Your task to perform on an android device: turn off location history Image 0: 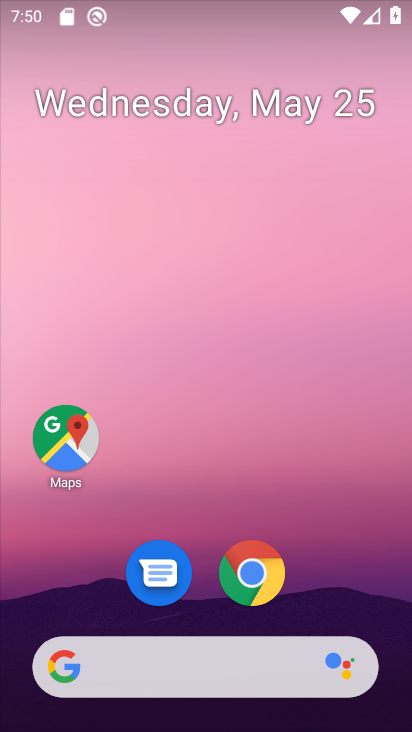
Step 0: drag from (400, 713) to (315, 164)
Your task to perform on an android device: turn off location history Image 1: 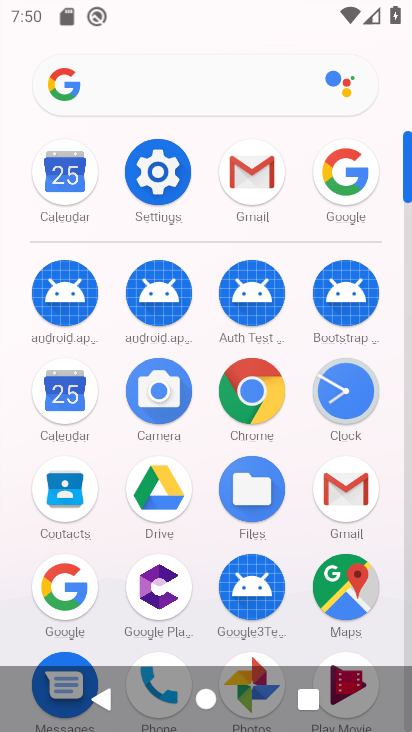
Step 1: click (158, 183)
Your task to perform on an android device: turn off location history Image 2: 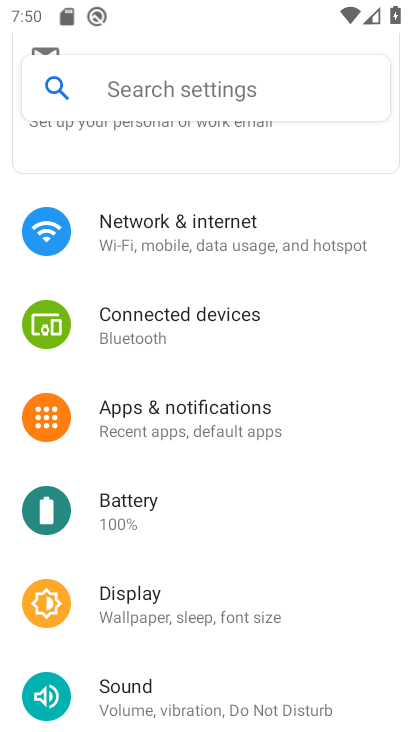
Step 2: drag from (323, 681) to (286, 329)
Your task to perform on an android device: turn off location history Image 3: 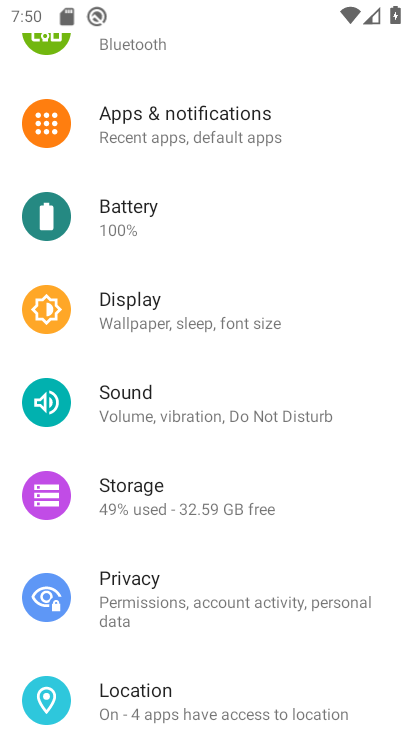
Step 3: click (128, 693)
Your task to perform on an android device: turn off location history Image 4: 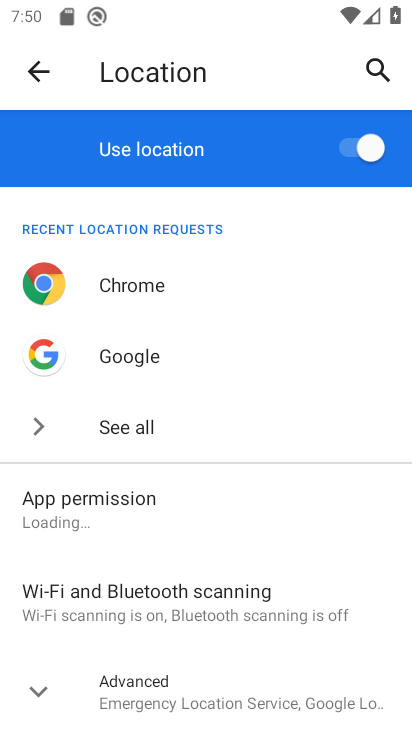
Step 4: drag from (230, 674) to (252, 361)
Your task to perform on an android device: turn off location history Image 5: 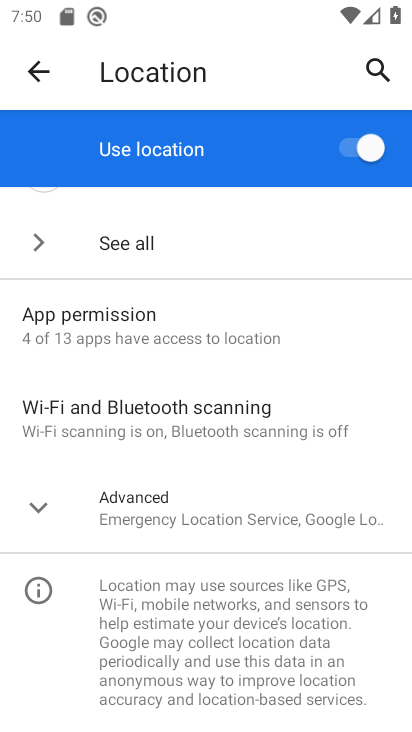
Step 5: click (38, 497)
Your task to perform on an android device: turn off location history Image 6: 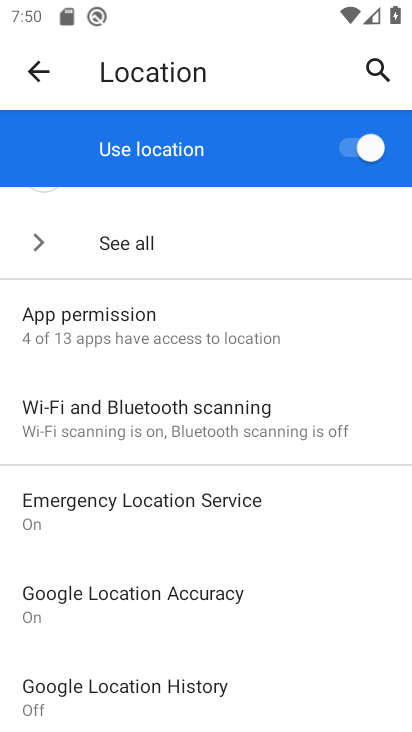
Step 6: drag from (387, 711) to (343, 372)
Your task to perform on an android device: turn off location history Image 7: 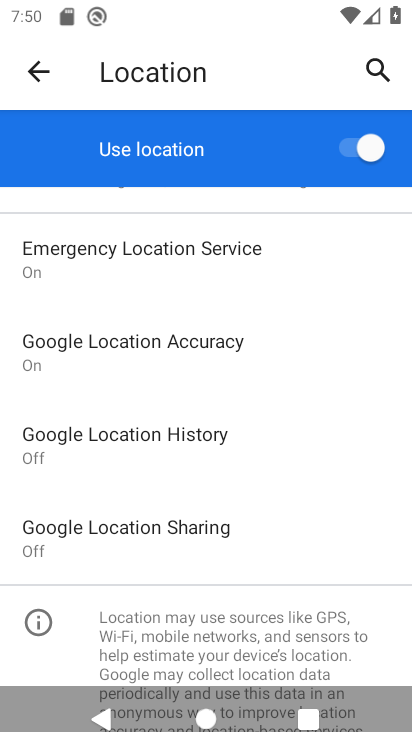
Step 7: click (67, 440)
Your task to perform on an android device: turn off location history Image 8: 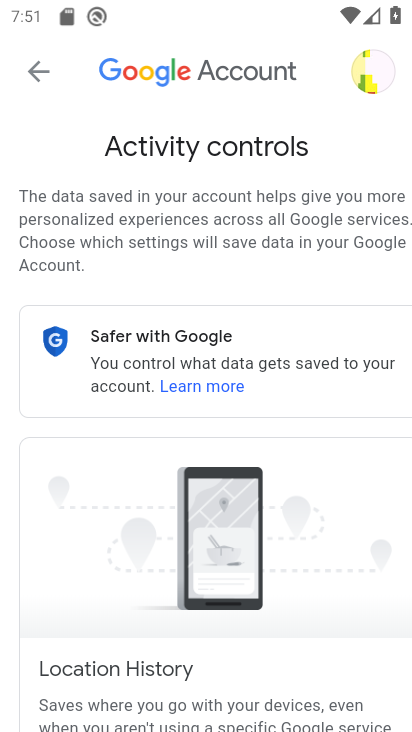
Step 8: click (47, 72)
Your task to perform on an android device: turn off location history Image 9: 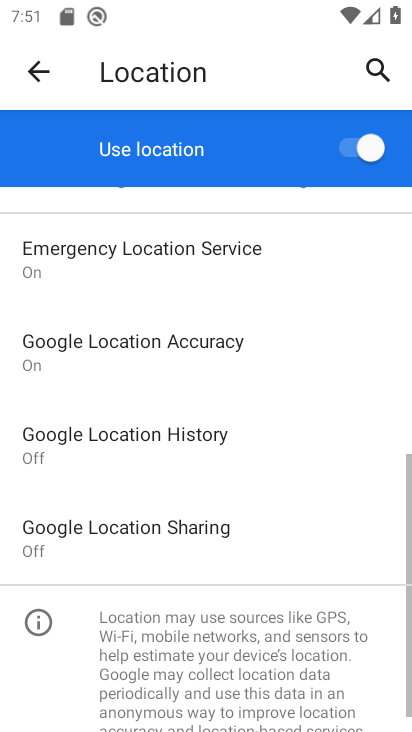
Step 9: click (127, 454)
Your task to perform on an android device: turn off location history Image 10: 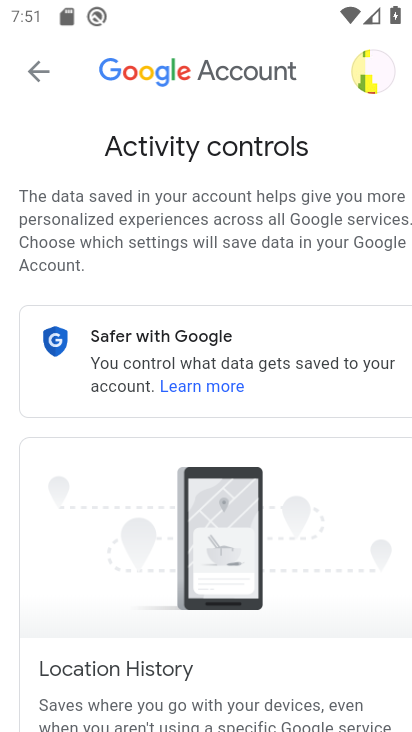
Step 10: task complete